Your task to perform on an android device: Go to sound settings Image 0: 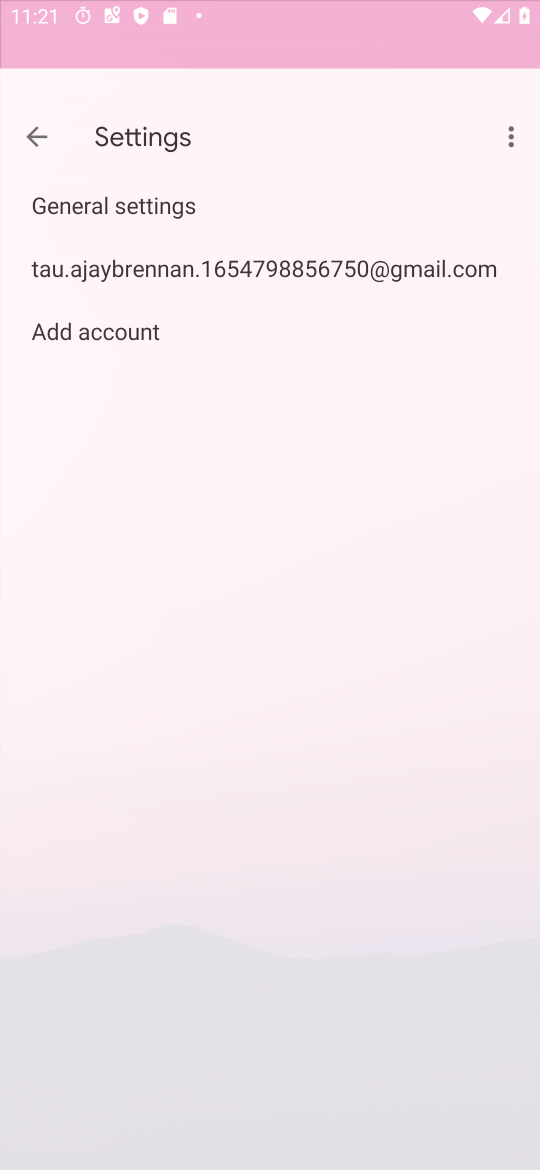
Step 0: drag from (239, 632) to (217, 286)
Your task to perform on an android device: Go to sound settings Image 1: 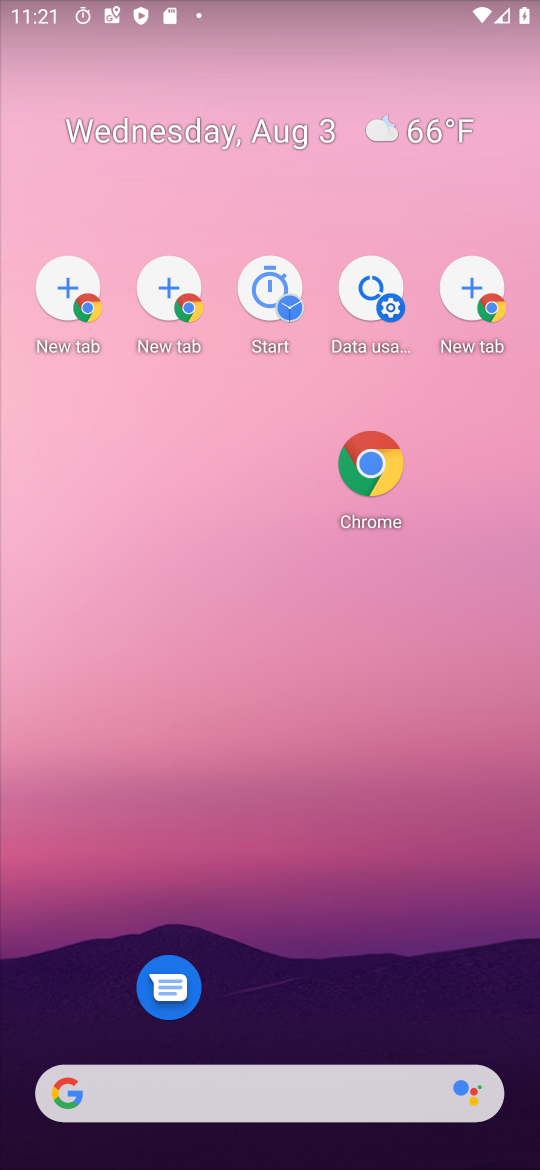
Step 1: drag from (195, 695) to (181, 249)
Your task to perform on an android device: Go to sound settings Image 2: 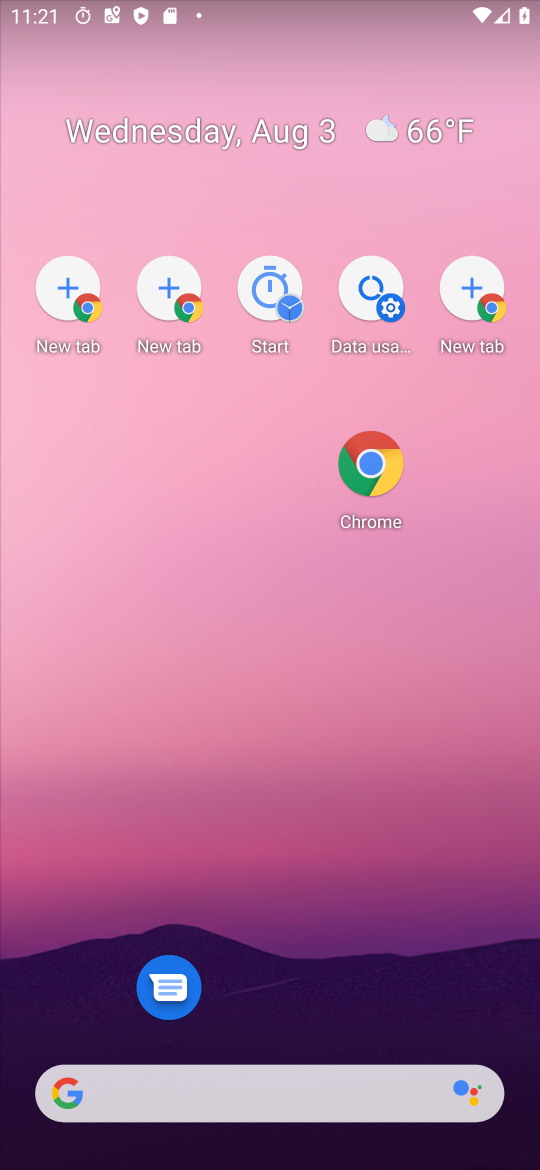
Step 2: drag from (312, 896) to (286, 300)
Your task to perform on an android device: Go to sound settings Image 3: 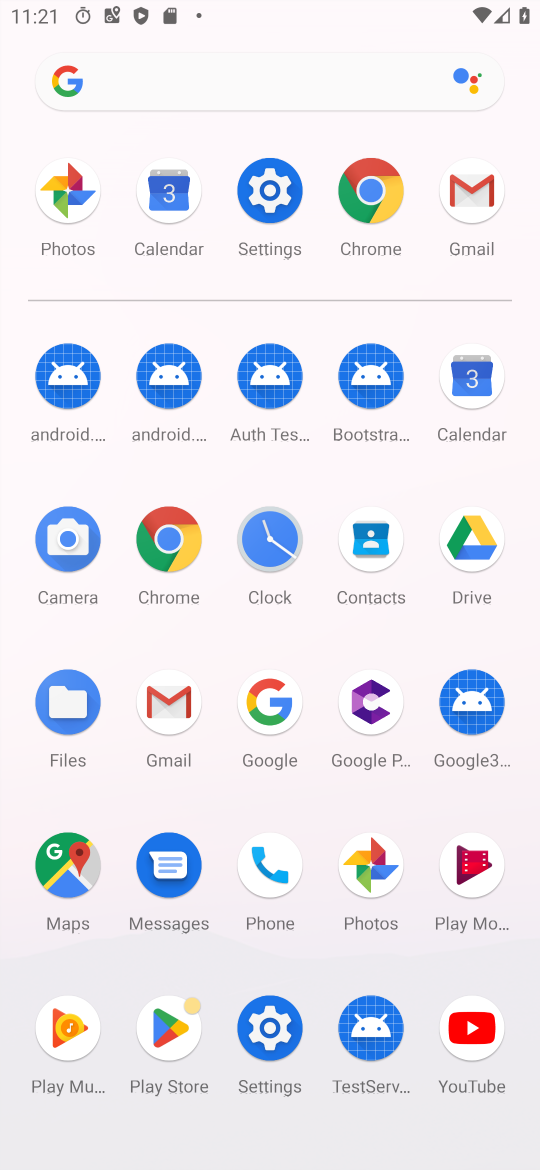
Step 3: click (274, 197)
Your task to perform on an android device: Go to sound settings Image 4: 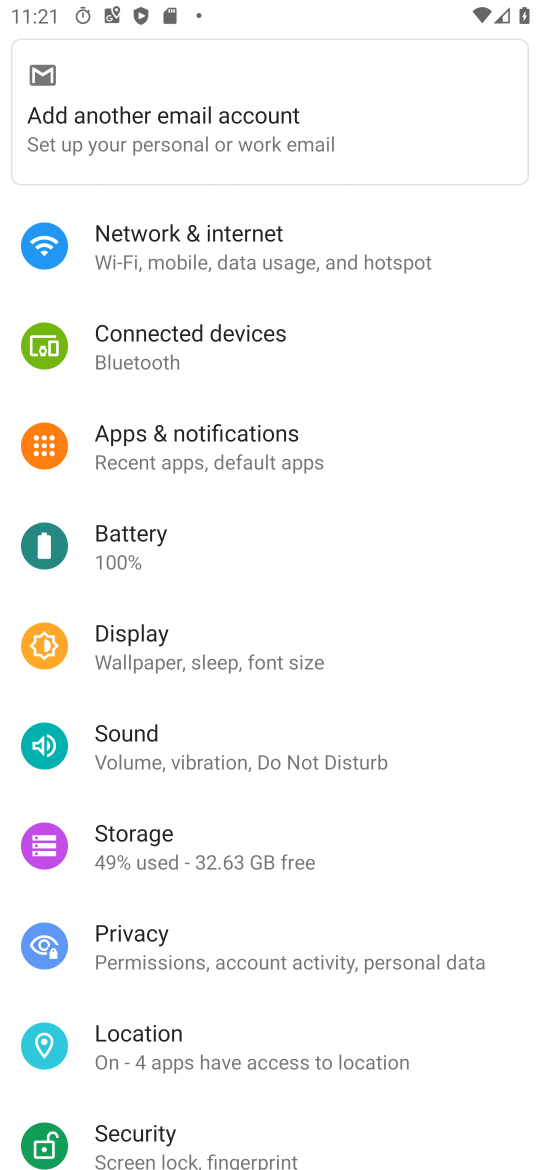
Step 4: click (157, 750)
Your task to perform on an android device: Go to sound settings Image 5: 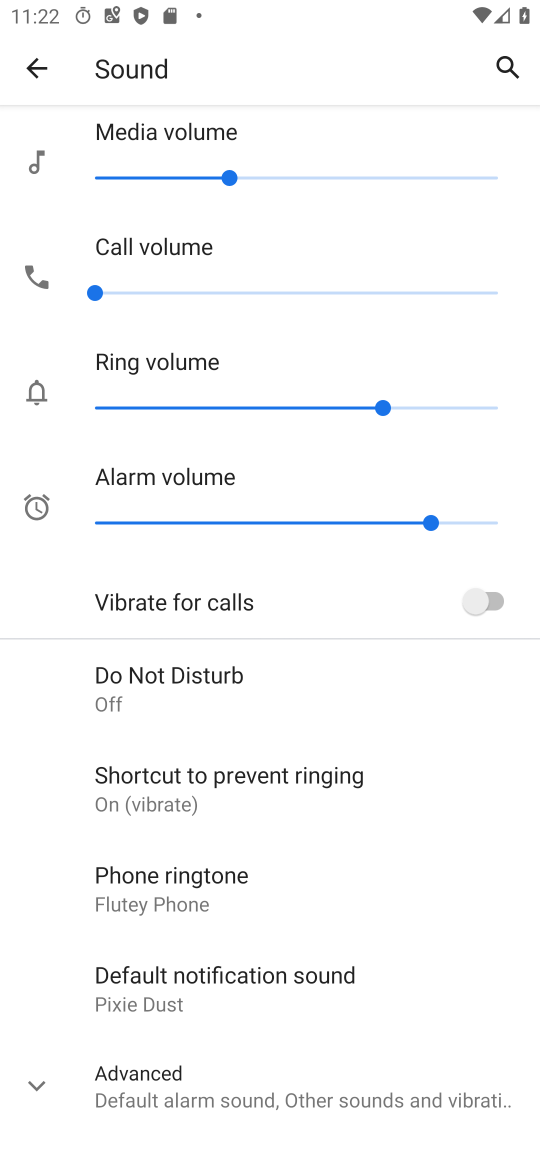
Step 5: drag from (207, 751) to (179, 308)
Your task to perform on an android device: Go to sound settings Image 6: 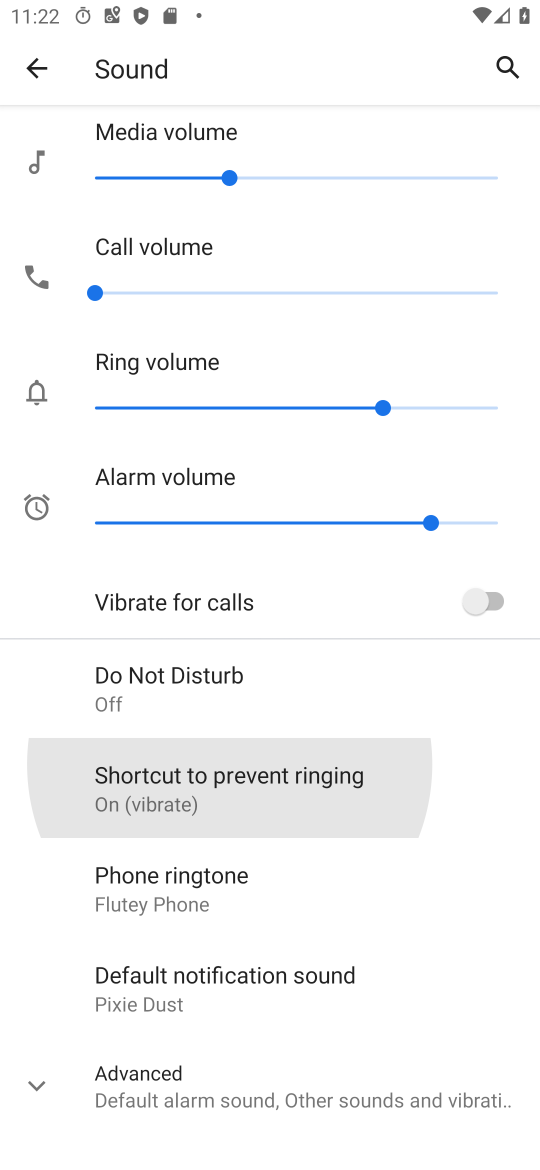
Step 6: click (224, 473)
Your task to perform on an android device: Go to sound settings Image 7: 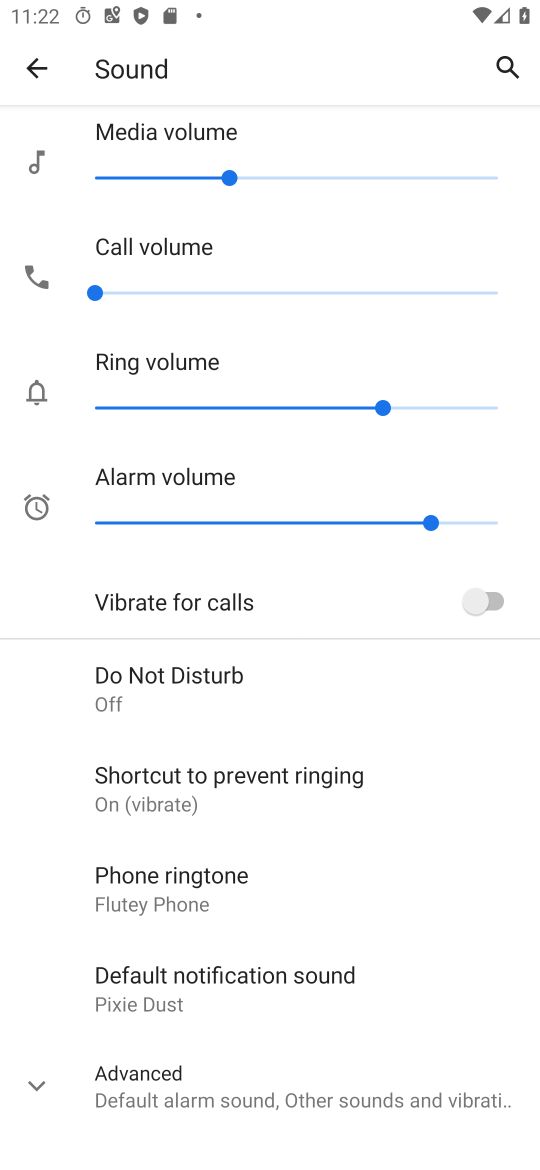
Step 7: task complete